Your task to perform on an android device: toggle notifications settings in the gmail app Image 0: 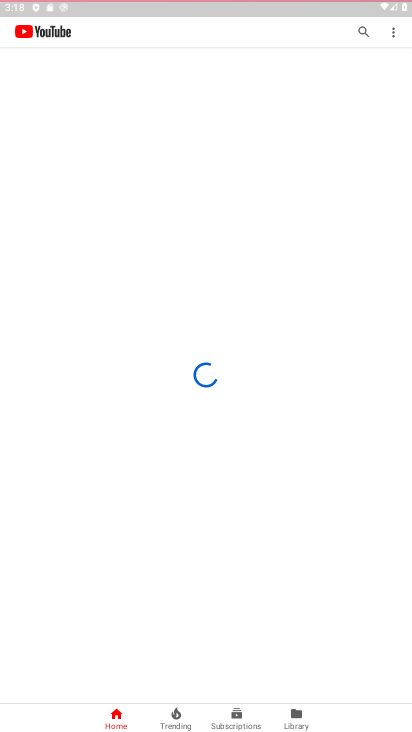
Step 0: click (216, 200)
Your task to perform on an android device: toggle notifications settings in the gmail app Image 1: 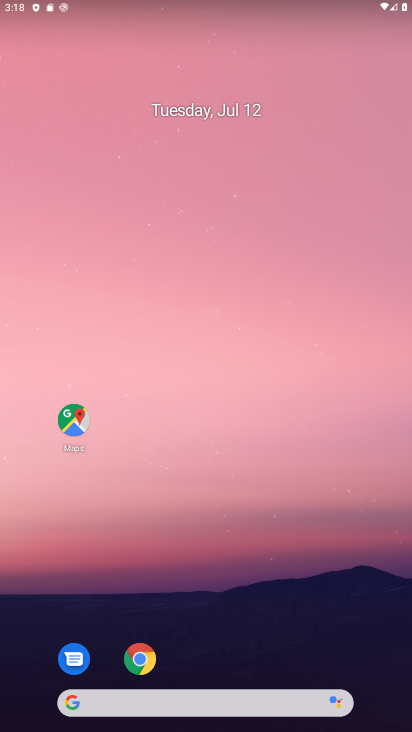
Step 1: drag from (241, 633) to (236, 167)
Your task to perform on an android device: toggle notifications settings in the gmail app Image 2: 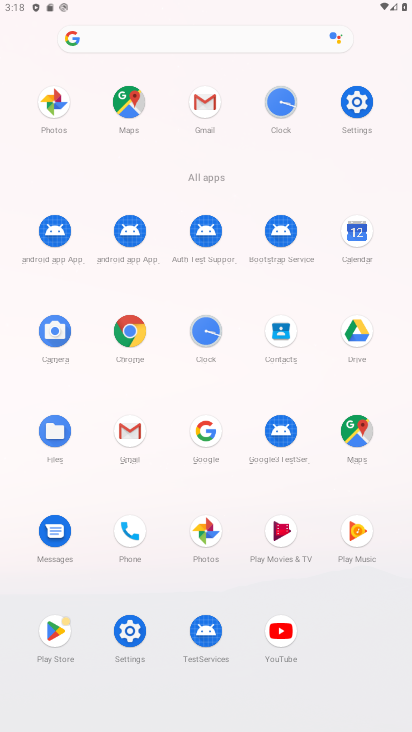
Step 2: click (200, 99)
Your task to perform on an android device: toggle notifications settings in the gmail app Image 3: 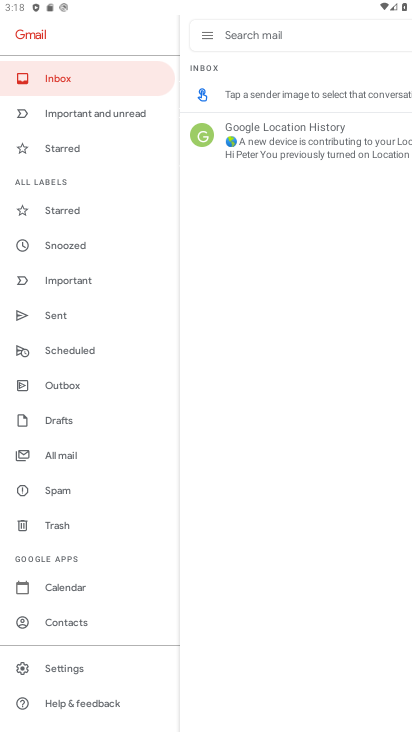
Step 3: click (78, 665)
Your task to perform on an android device: toggle notifications settings in the gmail app Image 4: 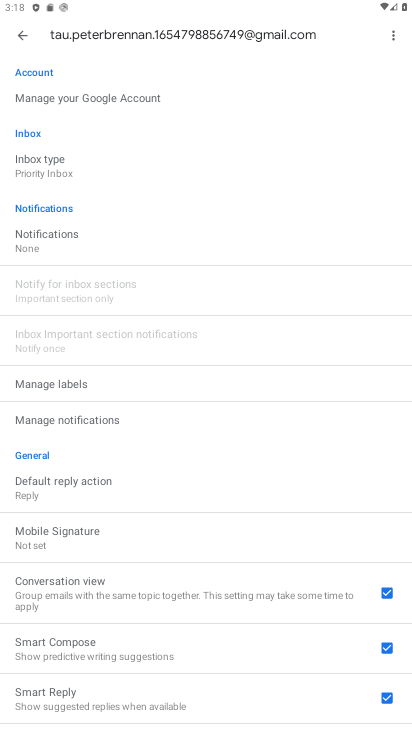
Step 4: click (43, 236)
Your task to perform on an android device: toggle notifications settings in the gmail app Image 5: 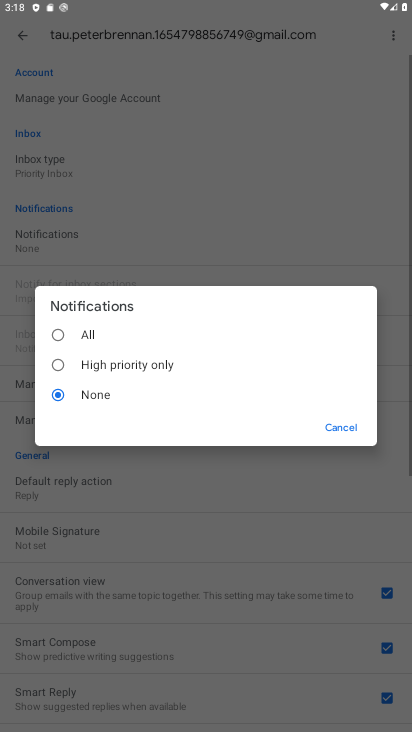
Step 5: click (62, 328)
Your task to perform on an android device: toggle notifications settings in the gmail app Image 6: 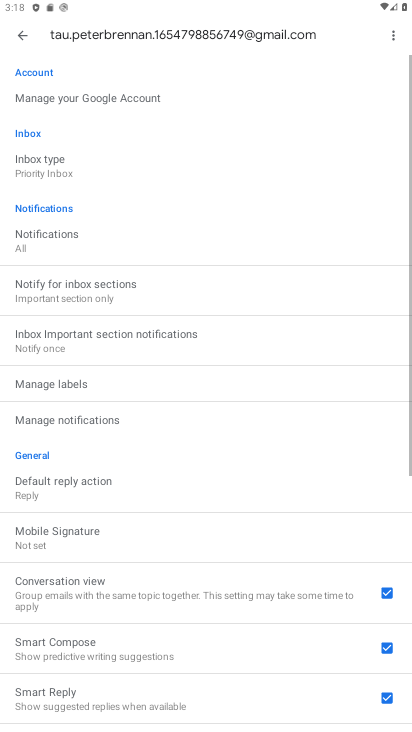
Step 6: task complete